Your task to perform on an android device: check android version Image 0: 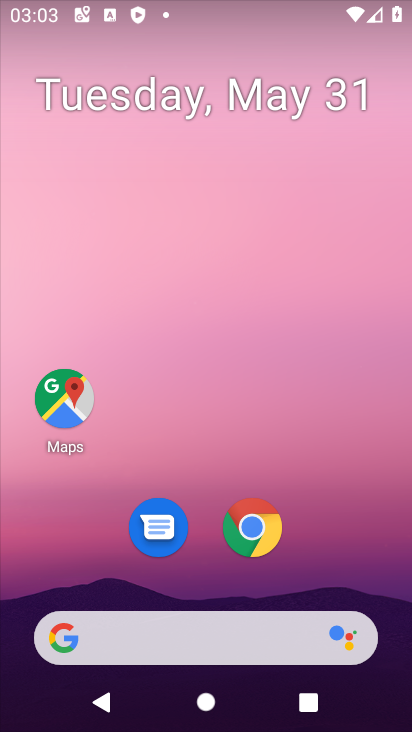
Step 0: drag from (402, 631) to (302, 145)
Your task to perform on an android device: check android version Image 1: 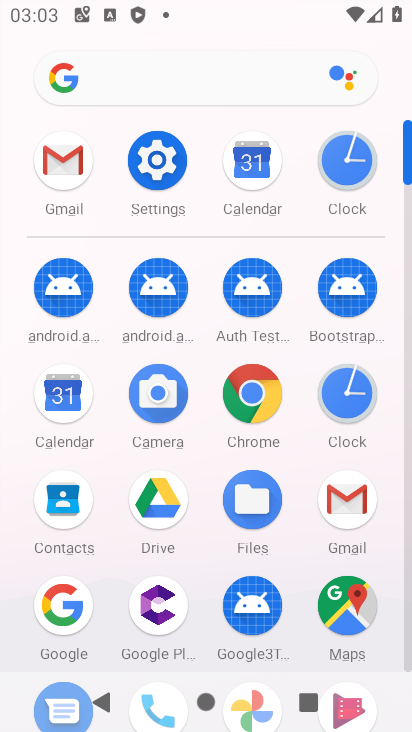
Step 1: click (406, 659)
Your task to perform on an android device: check android version Image 2: 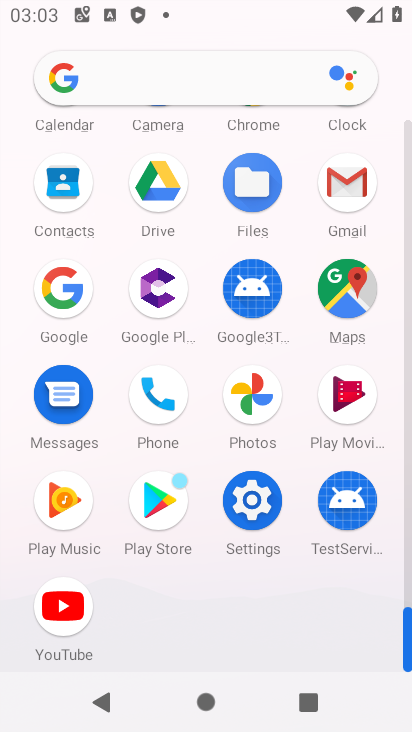
Step 2: click (254, 499)
Your task to perform on an android device: check android version Image 3: 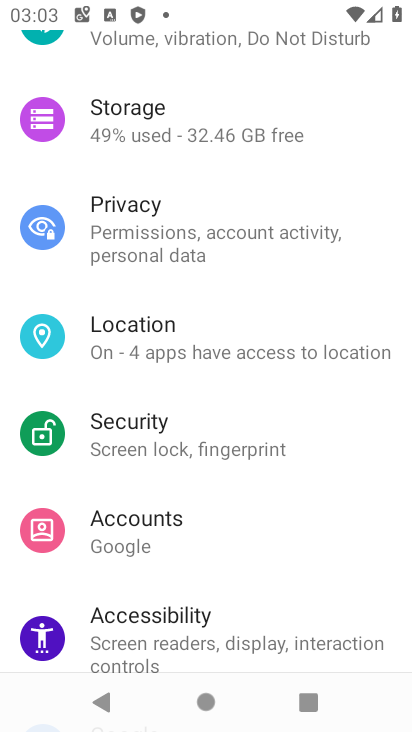
Step 3: drag from (317, 620) to (281, 140)
Your task to perform on an android device: check android version Image 4: 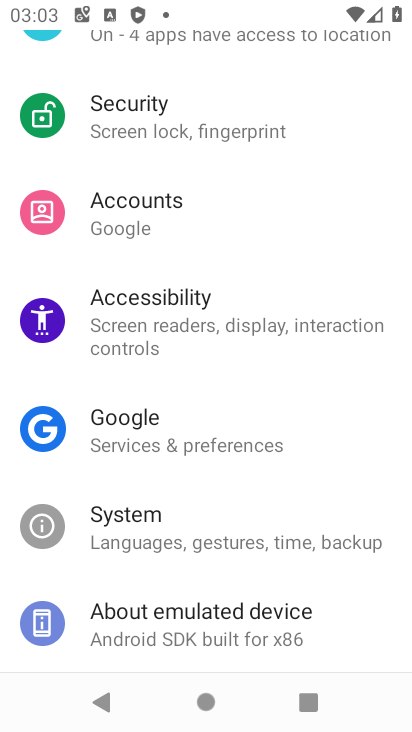
Step 4: click (139, 626)
Your task to perform on an android device: check android version Image 5: 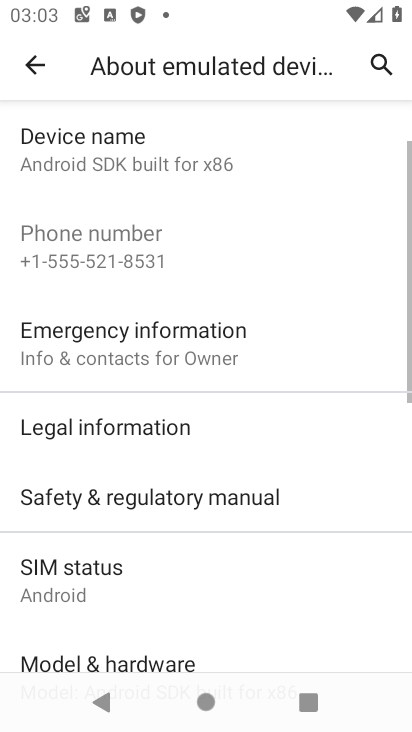
Step 5: drag from (253, 642) to (260, 323)
Your task to perform on an android device: check android version Image 6: 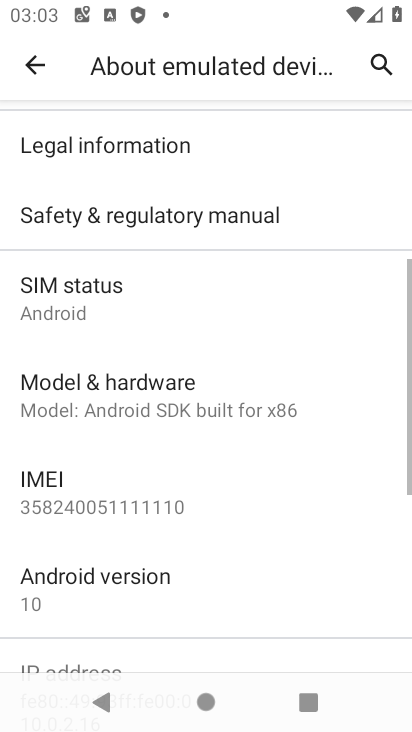
Step 6: drag from (278, 579) to (266, 377)
Your task to perform on an android device: check android version Image 7: 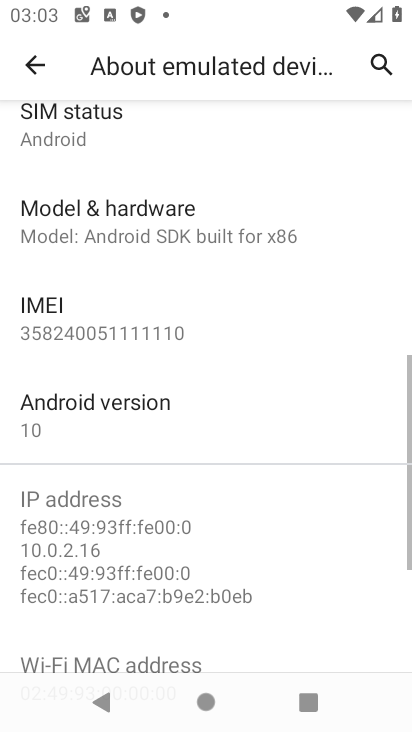
Step 7: click (74, 410)
Your task to perform on an android device: check android version Image 8: 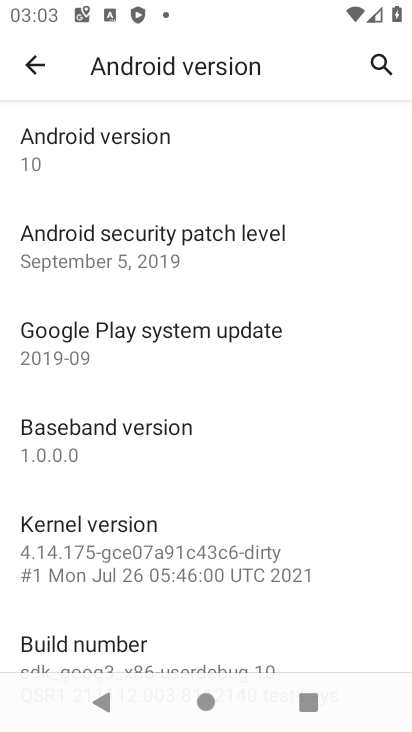
Step 8: task complete